Your task to perform on an android device: read, delete, or share a saved page in the chrome app Image 0: 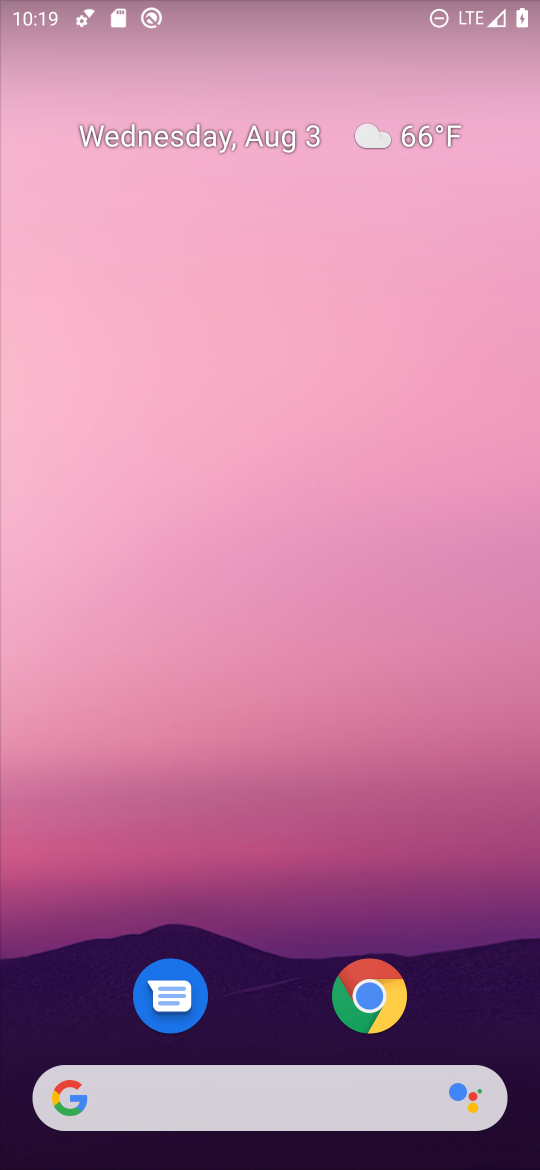
Step 0: click (369, 996)
Your task to perform on an android device: read, delete, or share a saved page in the chrome app Image 1: 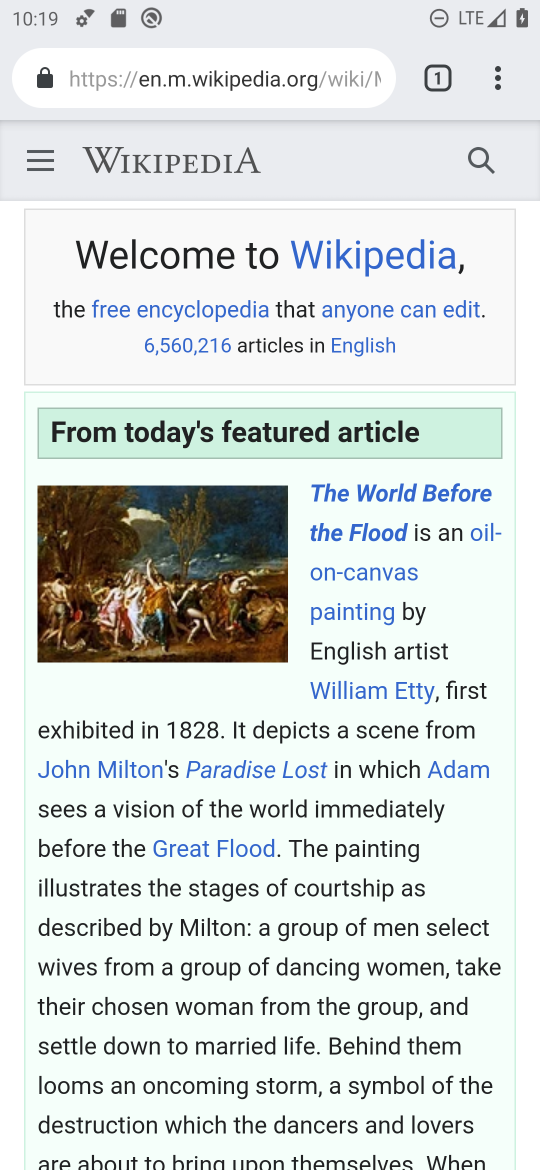
Step 1: click (498, 69)
Your task to perform on an android device: read, delete, or share a saved page in the chrome app Image 2: 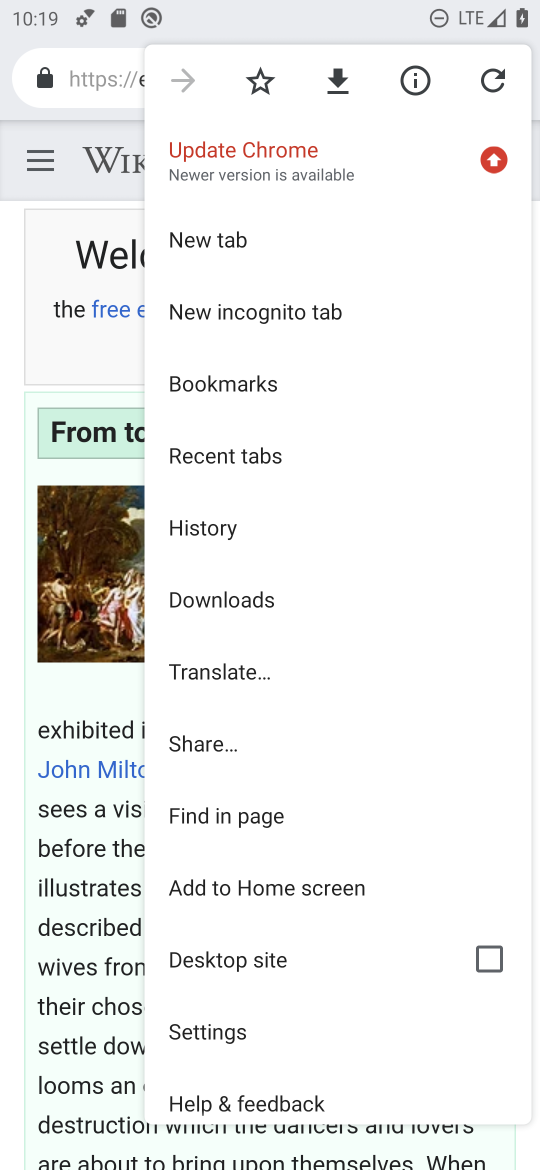
Step 2: click (266, 594)
Your task to perform on an android device: read, delete, or share a saved page in the chrome app Image 3: 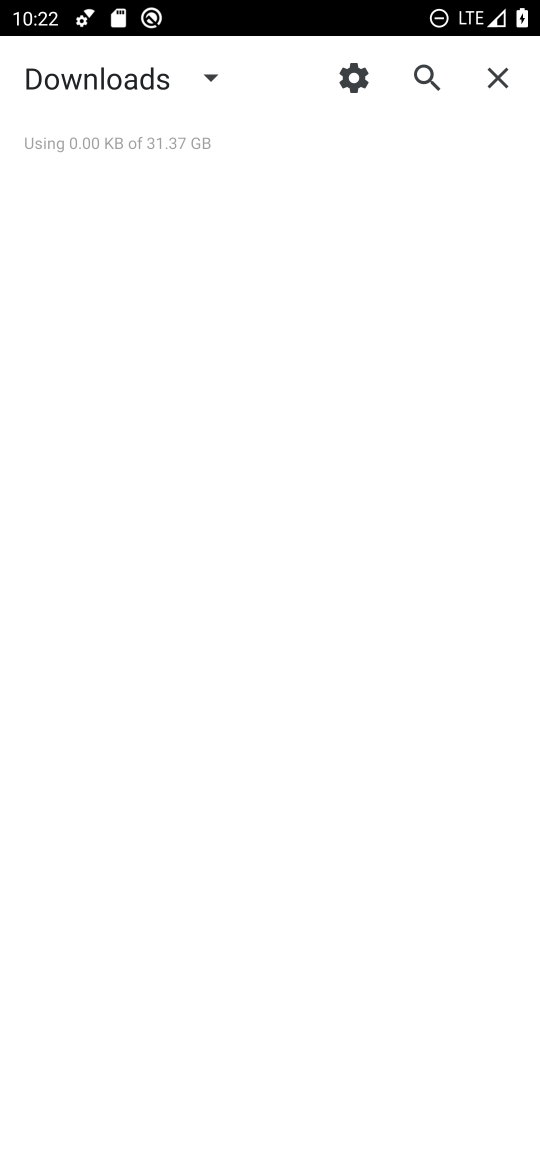
Step 3: task complete